Your task to perform on an android device: toggle location history Image 0: 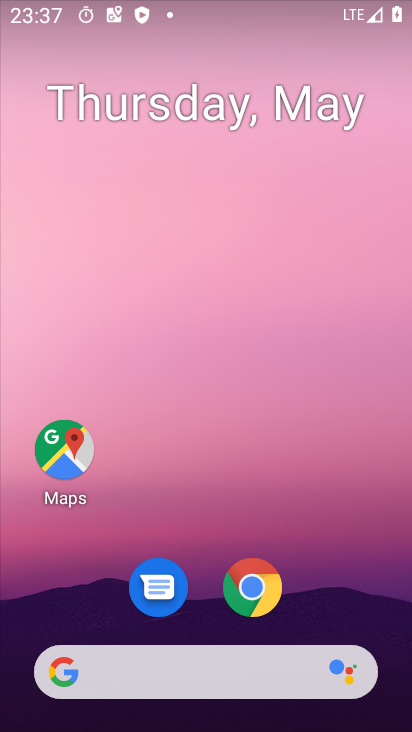
Step 0: click (56, 448)
Your task to perform on an android device: toggle location history Image 1: 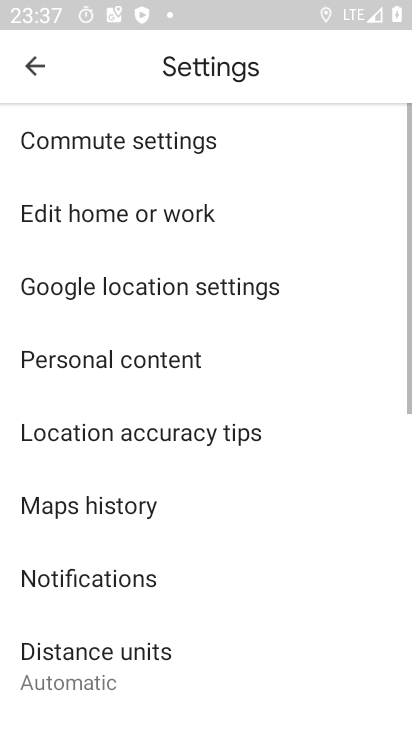
Step 1: click (31, 68)
Your task to perform on an android device: toggle location history Image 2: 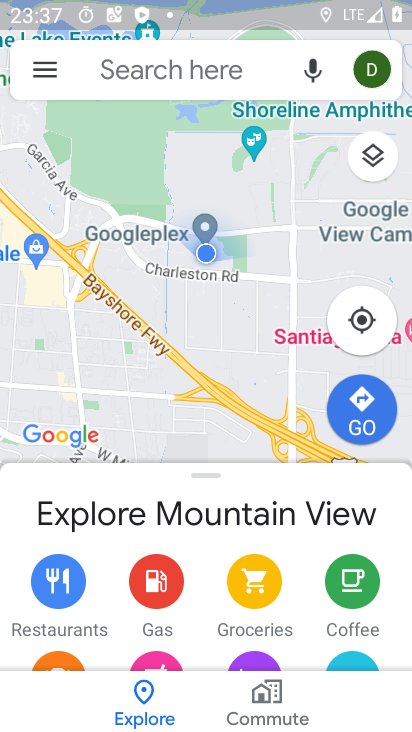
Step 2: click (51, 73)
Your task to perform on an android device: toggle location history Image 3: 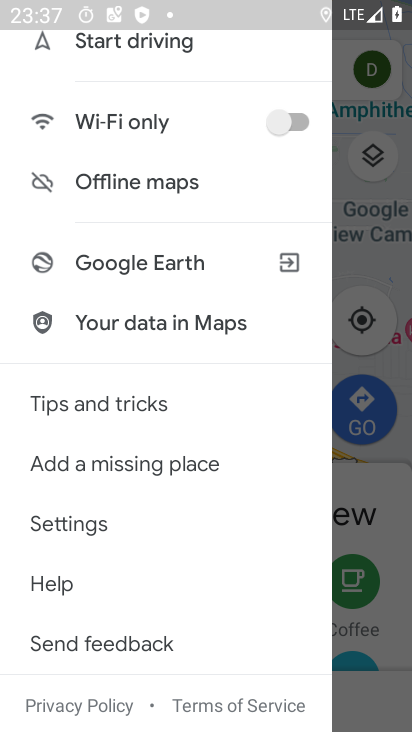
Step 3: drag from (124, 111) to (121, 550)
Your task to perform on an android device: toggle location history Image 4: 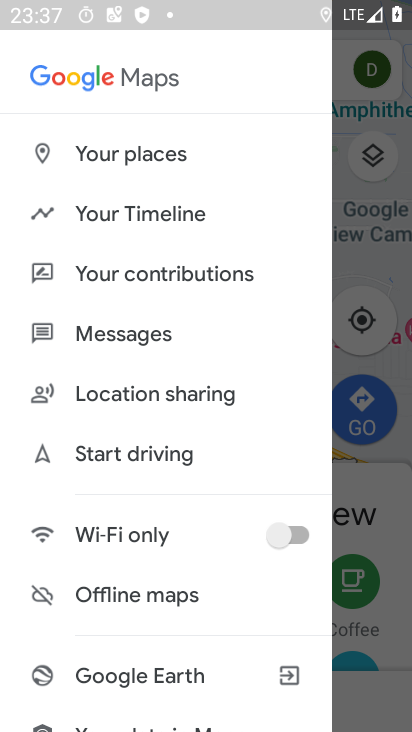
Step 4: click (109, 220)
Your task to perform on an android device: toggle location history Image 5: 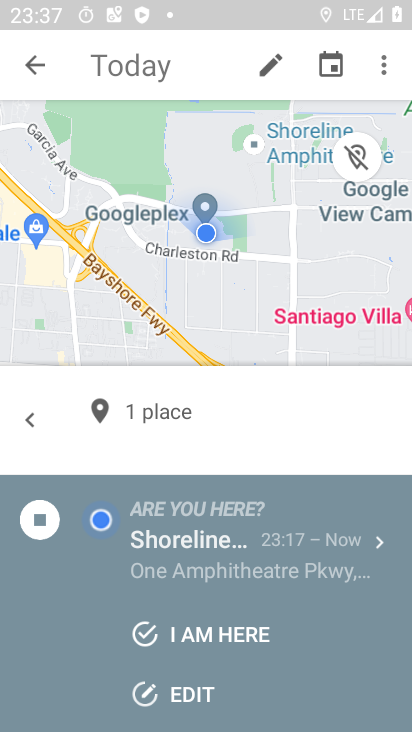
Step 5: click (380, 62)
Your task to perform on an android device: toggle location history Image 6: 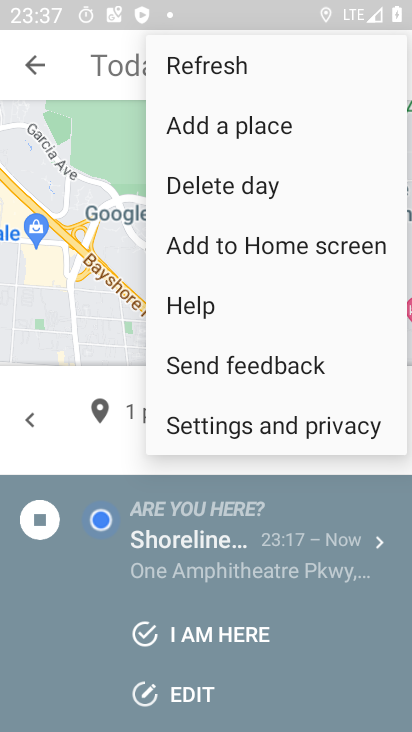
Step 6: click (239, 413)
Your task to perform on an android device: toggle location history Image 7: 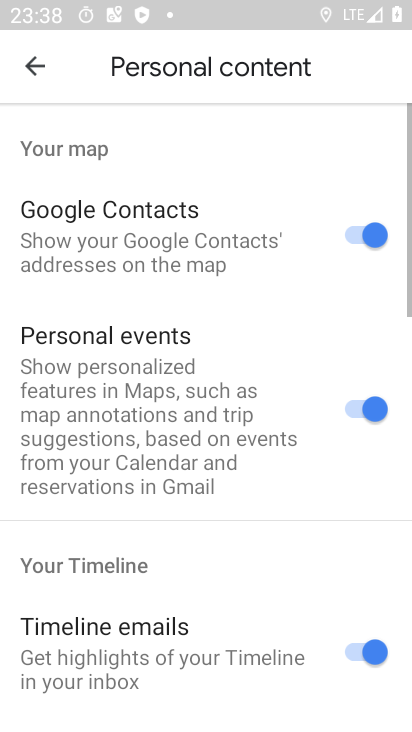
Step 7: drag from (239, 413) to (215, 68)
Your task to perform on an android device: toggle location history Image 8: 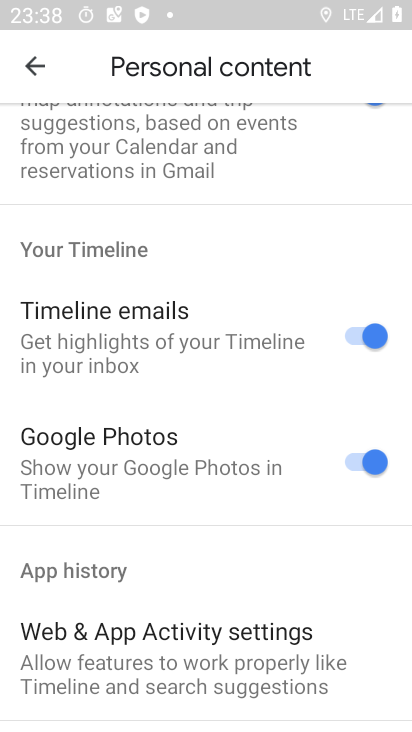
Step 8: drag from (164, 436) to (131, 95)
Your task to perform on an android device: toggle location history Image 9: 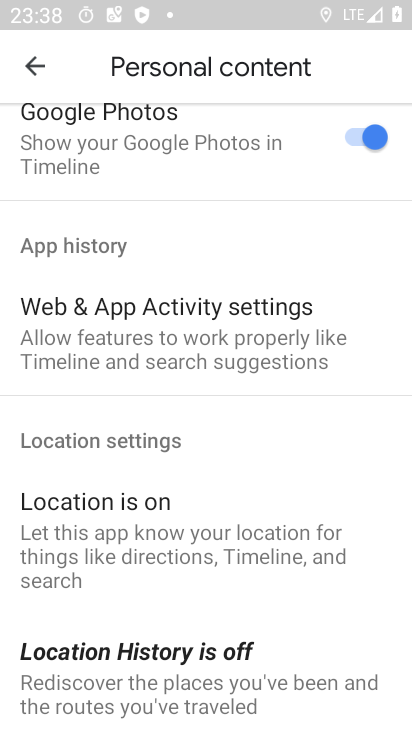
Step 9: drag from (151, 589) to (123, 182)
Your task to perform on an android device: toggle location history Image 10: 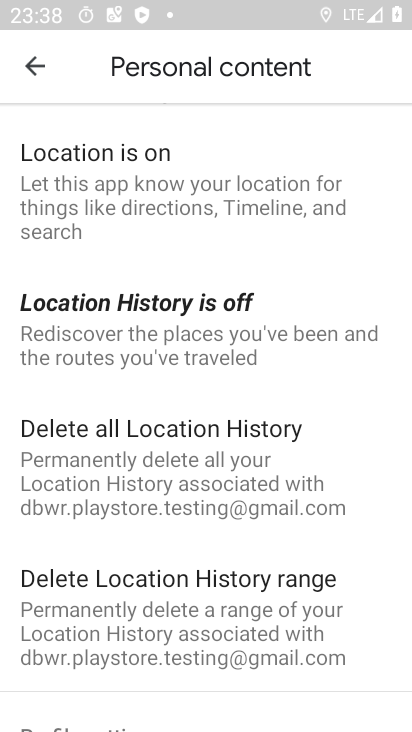
Step 10: click (113, 346)
Your task to perform on an android device: toggle location history Image 11: 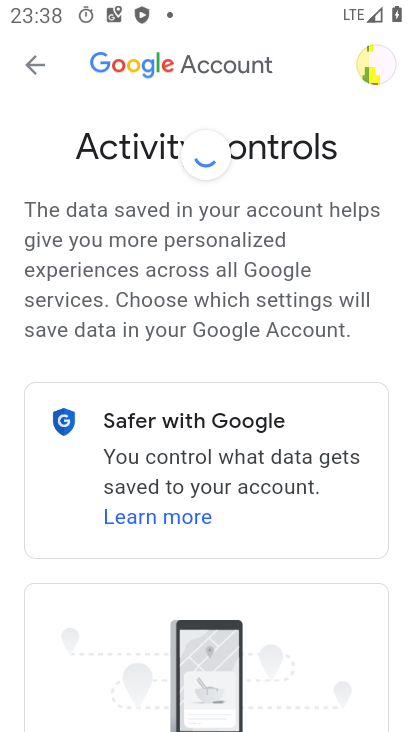
Step 11: drag from (276, 518) to (210, 50)
Your task to perform on an android device: toggle location history Image 12: 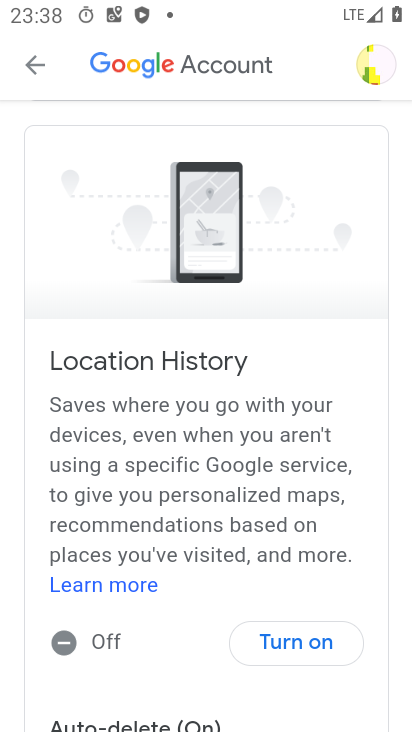
Step 12: drag from (226, 451) to (190, 159)
Your task to perform on an android device: toggle location history Image 13: 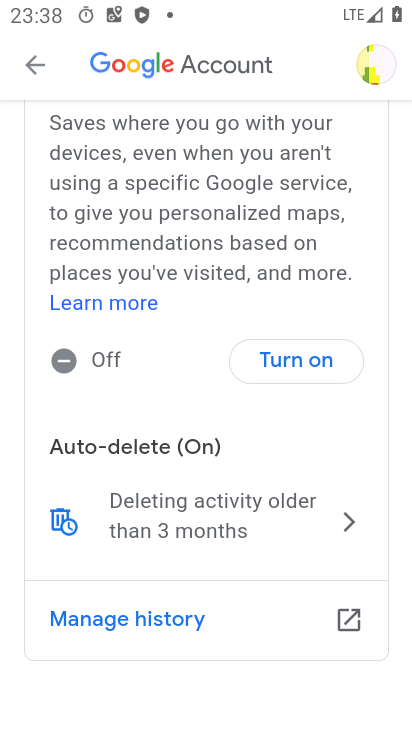
Step 13: click (289, 364)
Your task to perform on an android device: toggle location history Image 14: 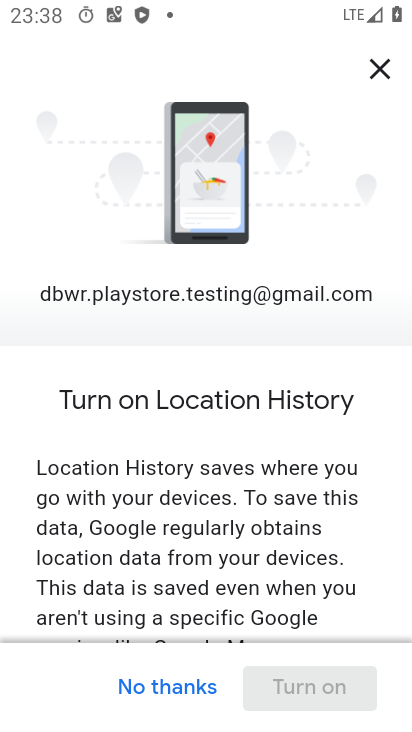
Step 14: drag from (219, 519) to (189, 357)
Your task to perform on an android device: toggle location history Image 15: 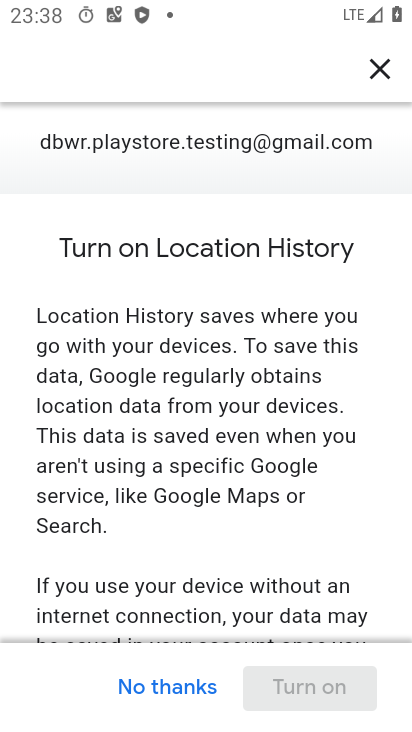
Step 15: drag from (231, 440) to (196, 195)
Your task to perform on an android device: toggle location history Image 16: 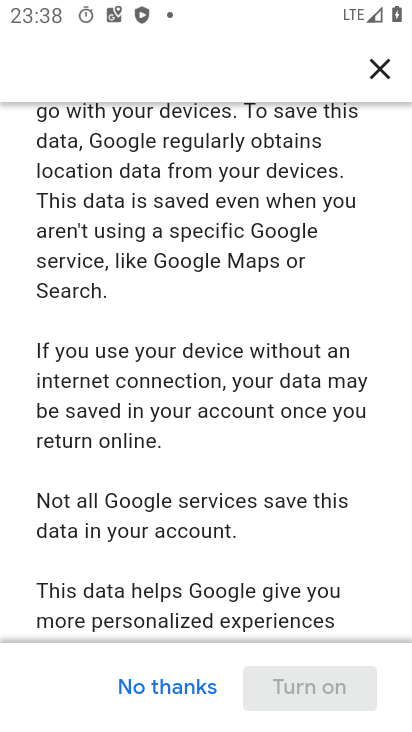
Step 16: drag from (223, 452) to (182, 181)
Your task to perform on an android device: toggle location history Image 17: 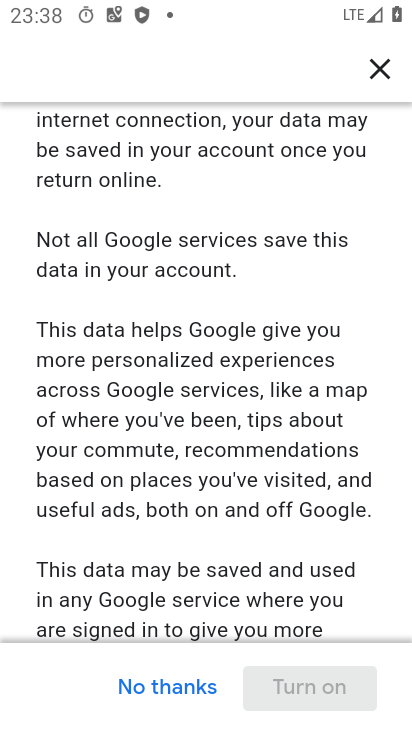
Step 17: drag from (194, 518) to (160, 301)
Your task to perform on an android device: toggle location history Image 18: 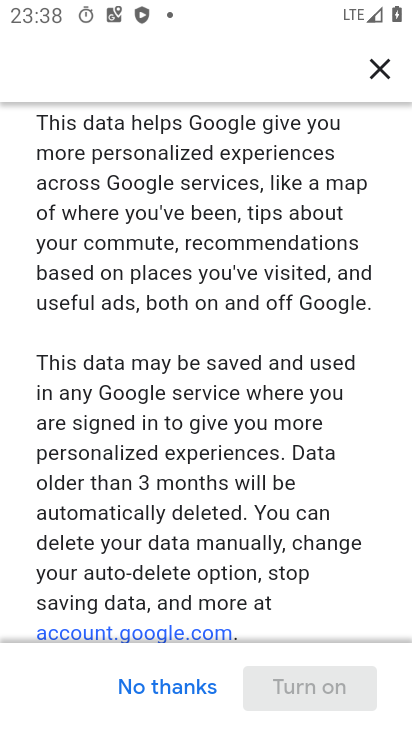
Step 18: drag from (223, 563) to (177, 236)
Your task to perform on an android device: toggle location history Image 19: 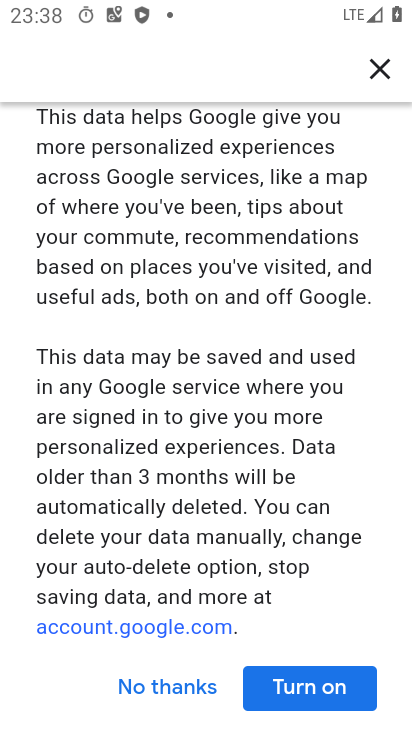
Step 19: click (307, 688)
Your task to perform on an android device: toggle location history Image 20: 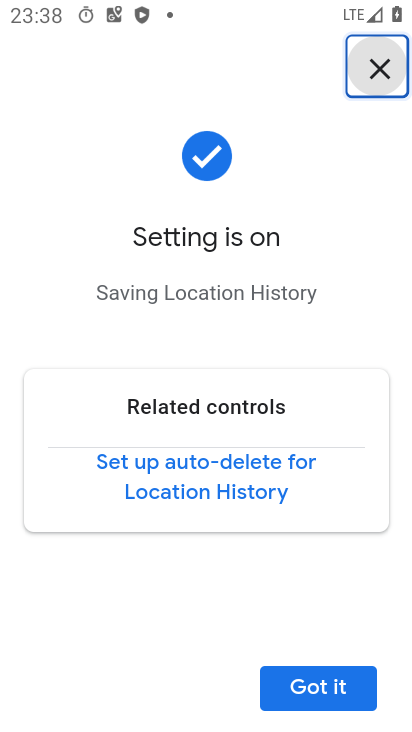
Step 20: click (307, 688)
Your task to perform on an android device: toggle location history Image 21: 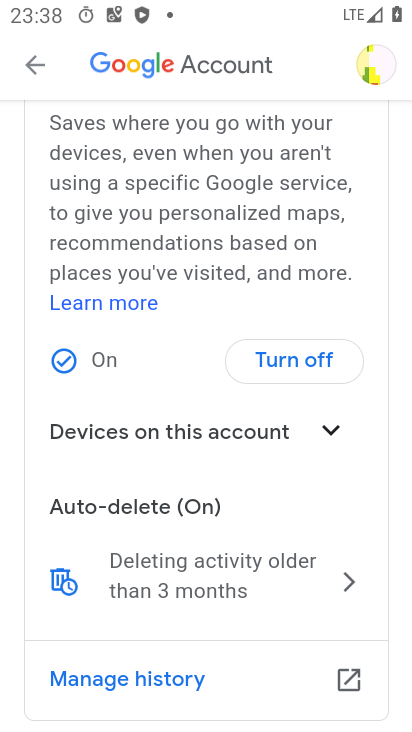
Step 21: task complete